Your task to perform on an android device: Search for the best selling TV on Best Buy. Image 0: 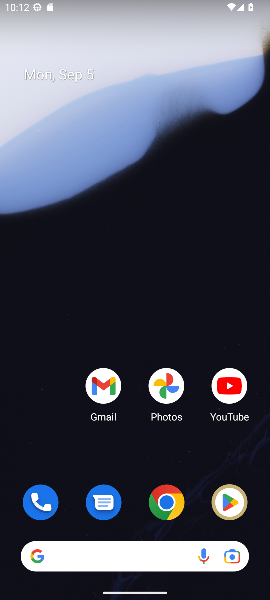
Step 0: drag from (257, 518) to (163, 1)
Your task to perform on an android device: Search for the best selling TV on Best Buy. Image 1: 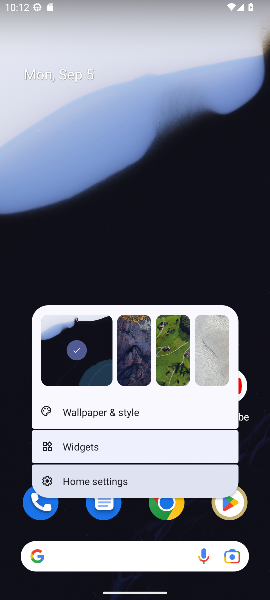
Step 1: click (201, 178)
Your task to perform on an android device: Search for the best selling TV on Best Buy. Image 2: 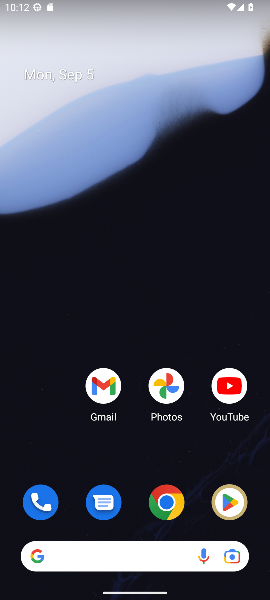
Step 2: drag from (244, 261) to (163, 47)
Your task to perform on an android device: Search for the best selling TV on Best Buy. Image 3: 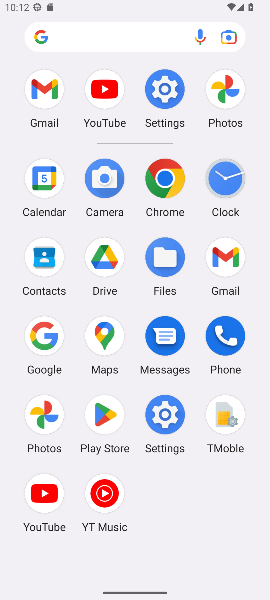
Step 3: drag from (237, 297) to (130, 6)
Your task to perform on an android device: Search for the best selling TV on Best Buy. Image 4: 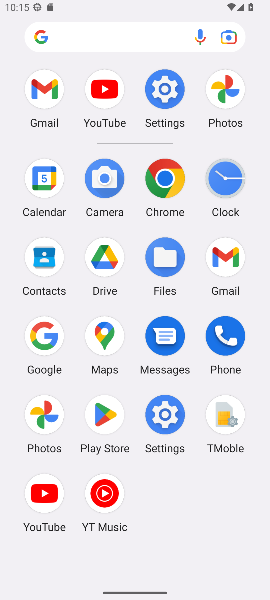
Step 4: click (49, 344)
Your task to perform on an android device: Search for the best selling TV on Best Buy. Image 5: 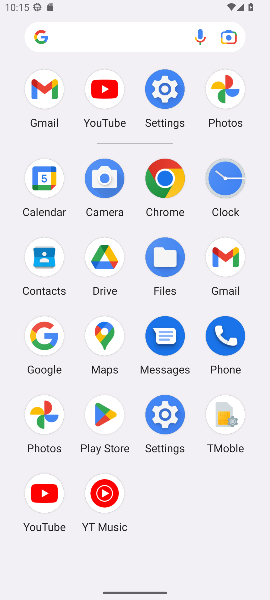
Step 5: click (55, 346)
Your task to perform on an android device: Search for the best selling TV on Best Buy. Image 6: 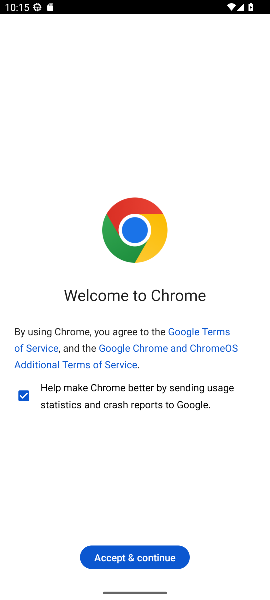
Step 6: press back button
Your task to perform on an android device: Search for the best selling TV on Best Buy. Image 7: 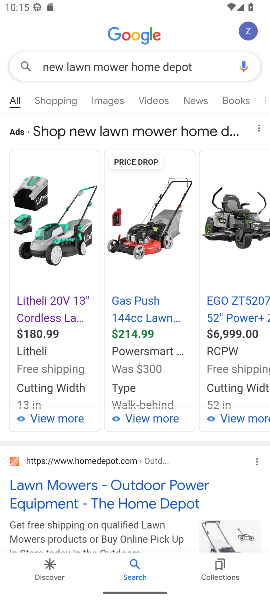
Step 7: press back button
Your task to perform on an android device: Search for the best selling TV on Best Buy. Image 8: 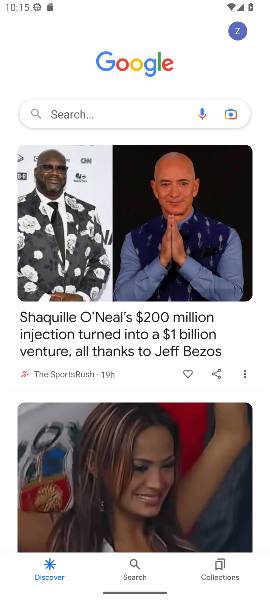
Step 8: click (75, 115)
Your task to perform on an android device: Search for the best selling TV on Best Buy. Image 9: 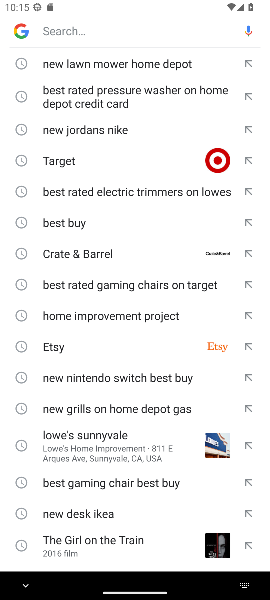
Step 9: type "best selling TV on Best Buy"
Your task to perform on an android device: Search for the best selling TV on Best Buy. Image 10: 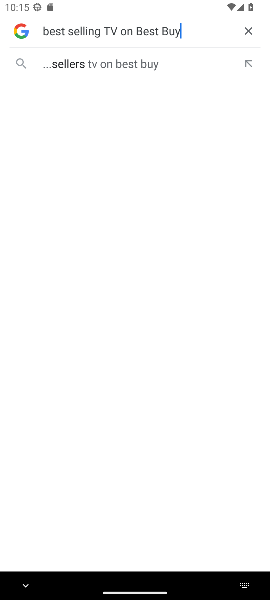
Step 10: click (115, 69)
Your task to perform on an android device: Search for the best selling TV on Best Buy. Image 11: 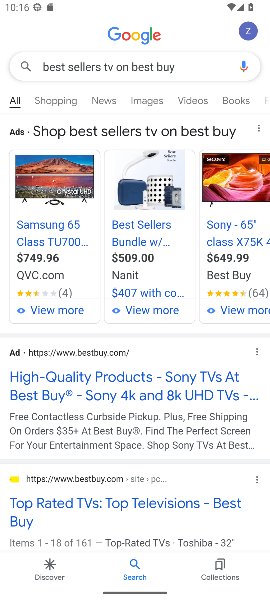
Step 11: task complete